Your task to perform on an android device: change keyboard looks Image 0: 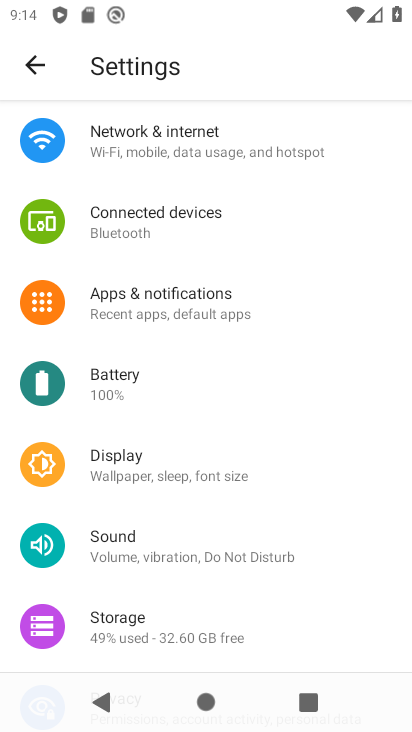
Step 0: drag from (222, 637) to (273, 311)
Your task to perform on an android device: change keyboard looks Image 1: 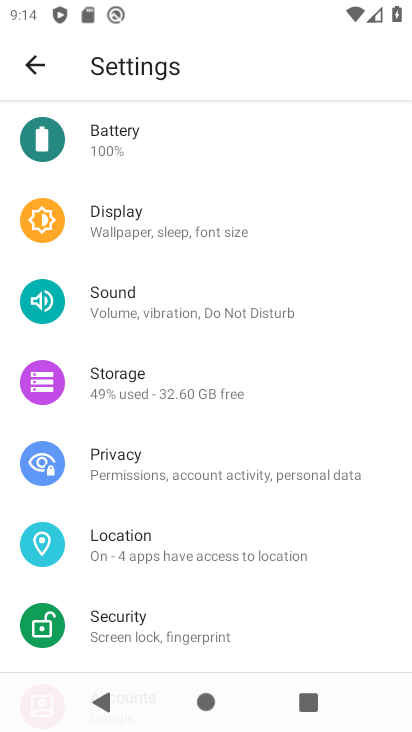
Step 1: drag from (224, 599) to (222, 314)
Your task to perform on an android device: change keyboard looks Image 2: 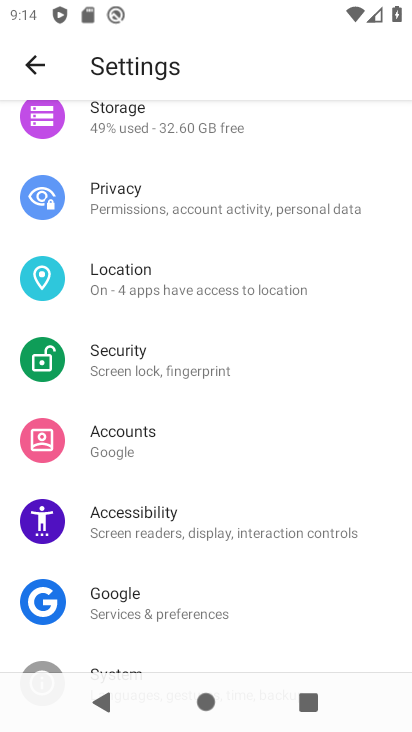
Step 2: drag from (252, 617) to (253, 291)
Your task to perform on an android device: change keyboard looks Image 3: 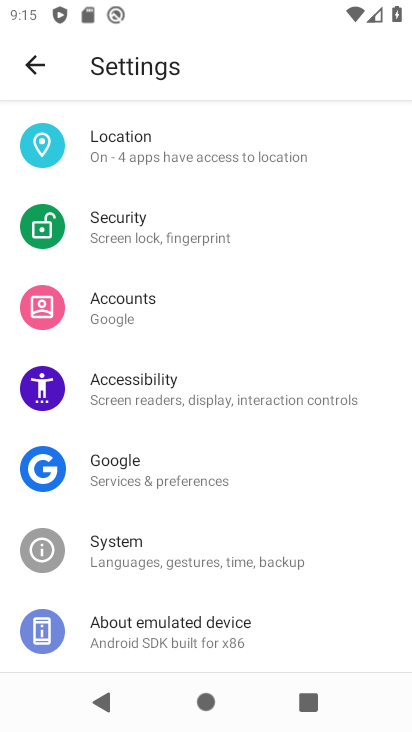
Step 3: click (173, 556)
Your task to perform on an android device: change keyboard looks Image 4: 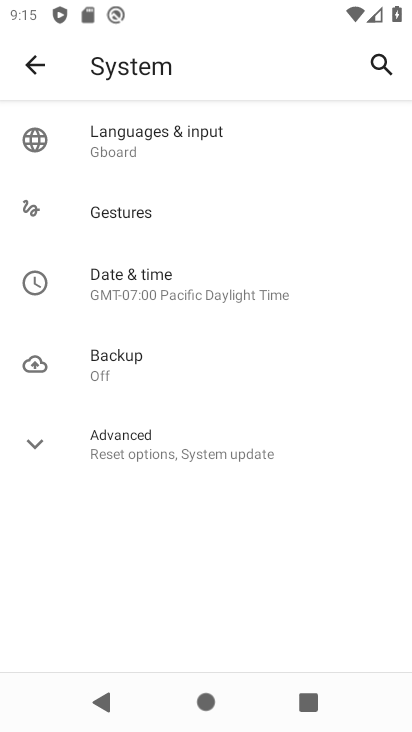
Step 4: click (202, 142)
Your task to perform on an android device: change keyboard looks Image 5: 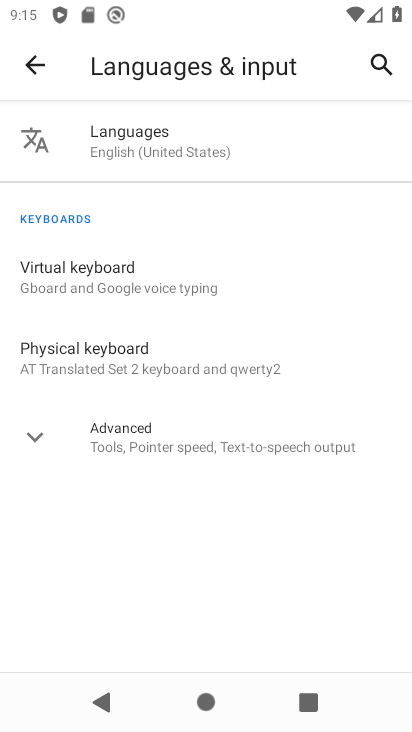
Step 5: click (139, 280)
Your task to perform on an android device: change keyboard looks Image 6: 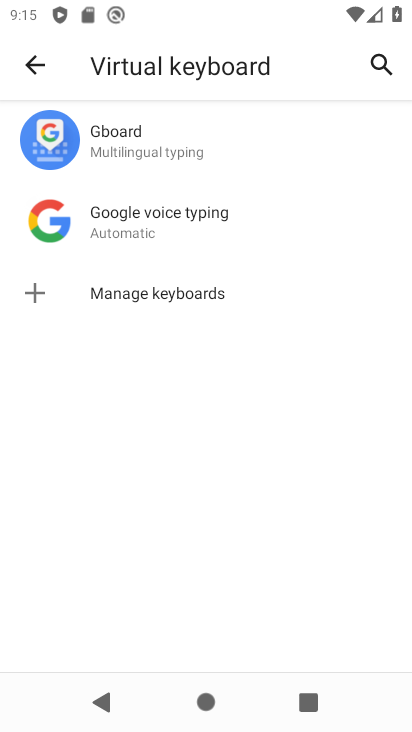
Step 6: click (164, 156)
Your task to perform on an android device: change keyboard looks Image 7: 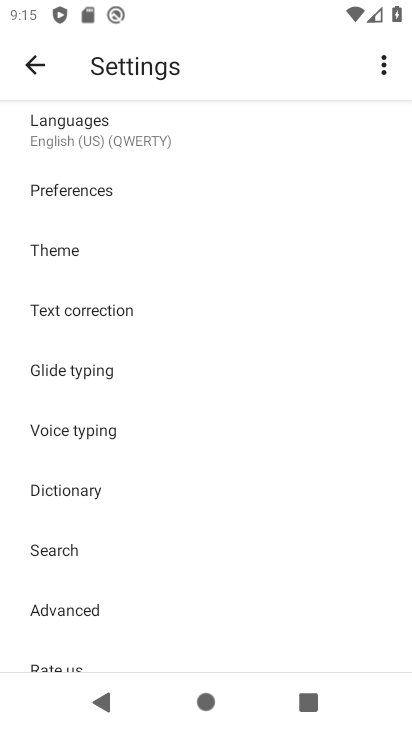
Step 7: click (71, 253)
Your task to perform on an android device: change keyboard looks Image 8: 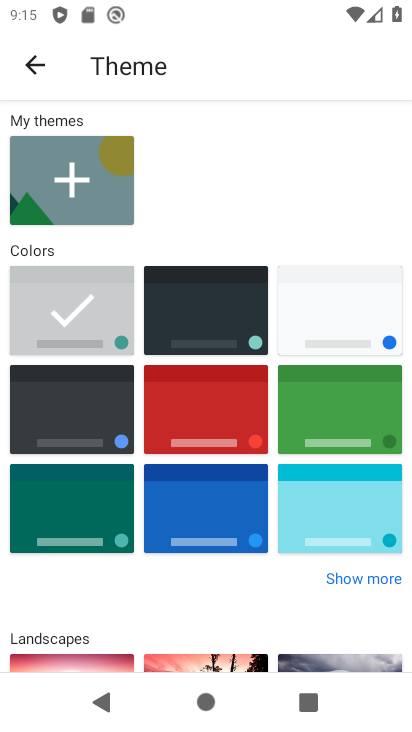
Step 8: click (241, 304)
Your task to perform on an android device: change keyboard looks Image 9: 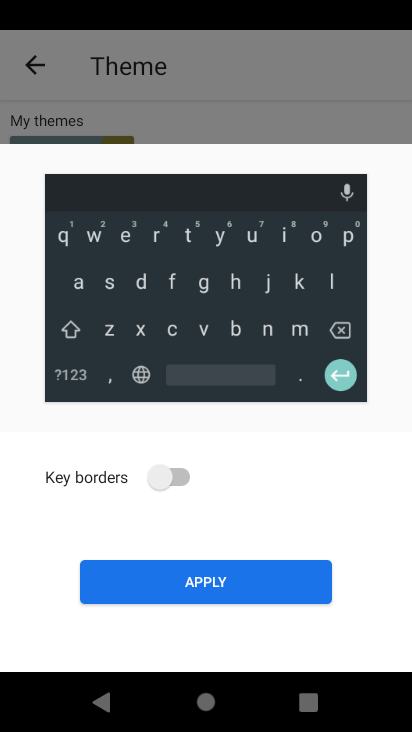
Step 9: click (188, 479)
Your task to perform on an android device: change keyboard looks Image 10: 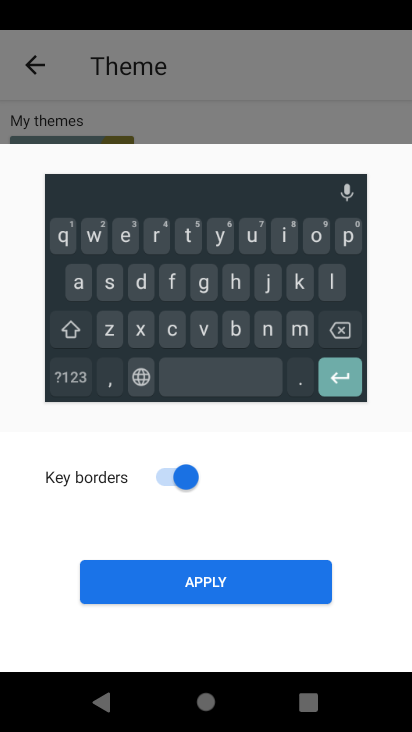
Step 10: click (245, 579)
Your task to perform on an android device: change keyboard looks Image 11: 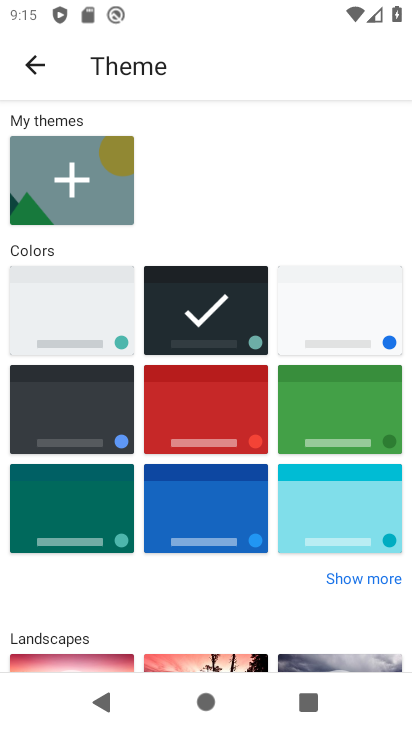
Step 11: task complete